Your task to perform on an android device: What's on my calendar tomorrow? Image 0: 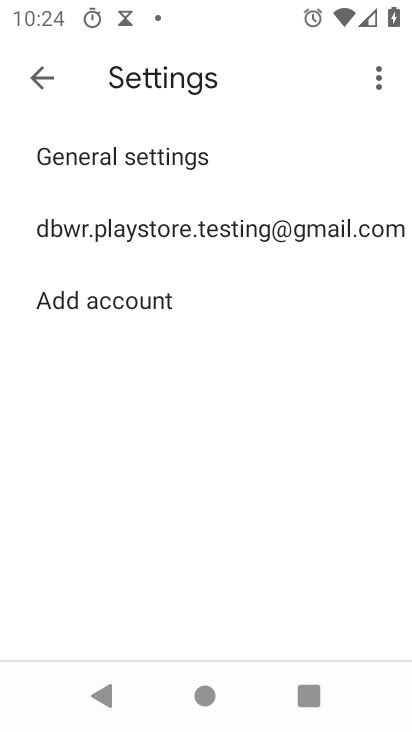
Step 0: press home button
Your task to perform on an android device: What's on my calendar tomorrow? Image 1: 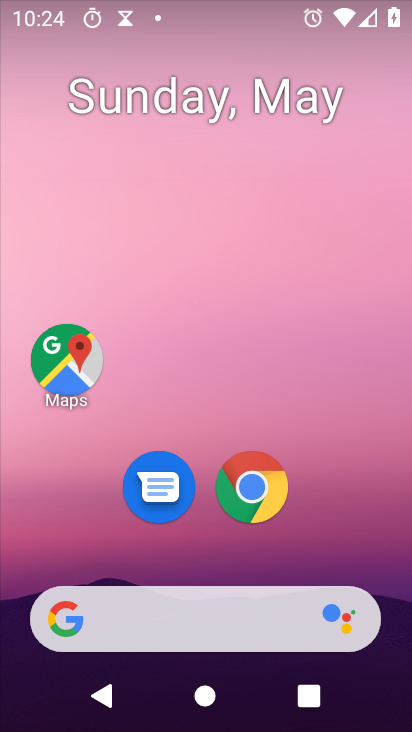
Step 1: drag from (347, 496) to (358, 76)
Your task to perform on an android device: What's on my calendar tomorrow? Image 2: 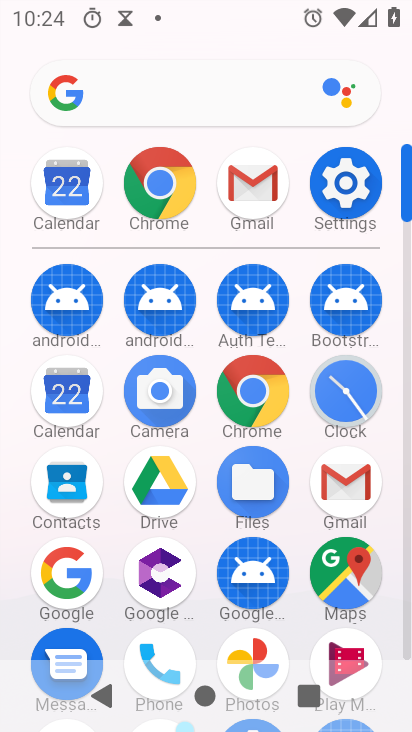
Step 2: click (83, 400)
Your task to perform on an android device: What's on my calendar tomorrow? Image 3: 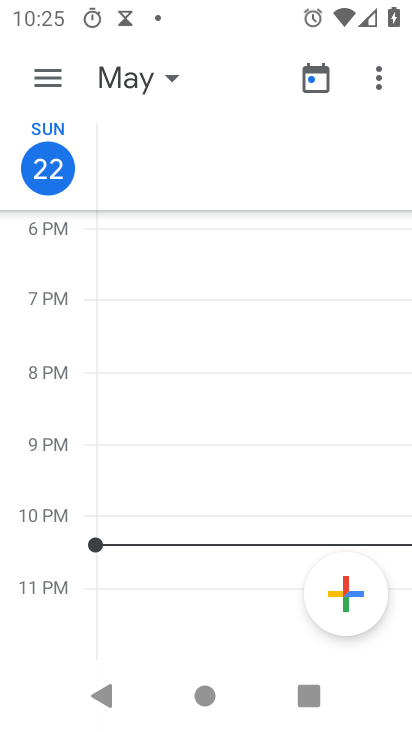
Step 3: click (121, 80)
Your task to perform on an android device: What's on my calendar tomorrow? Image 4: 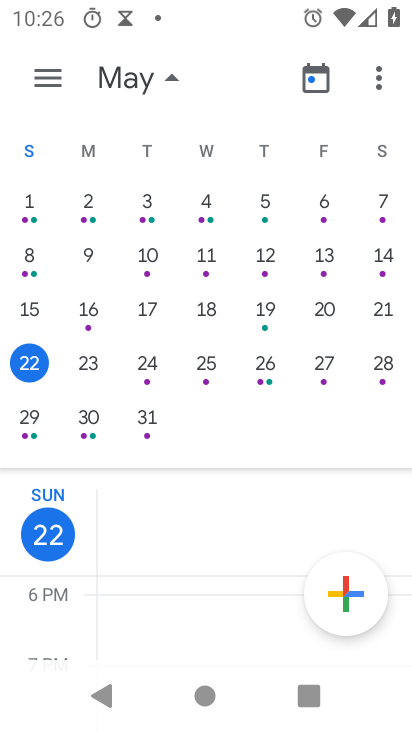
Step 4: click (100, 368)
Your task to perform on an android device: What's on my calendar tomorrow? Image 5: 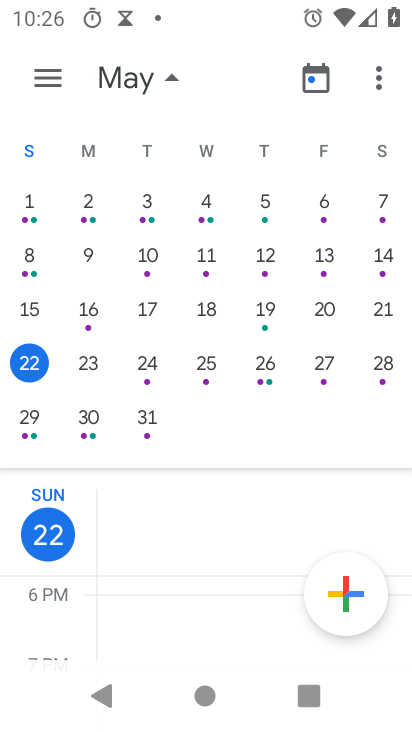
Step 5: task complete